Your task to perform on an android device: Clear all items from cart on walmart.com. Add macbook pro 13 inch to the cart on walmart.com, then select checkout. Image 0: 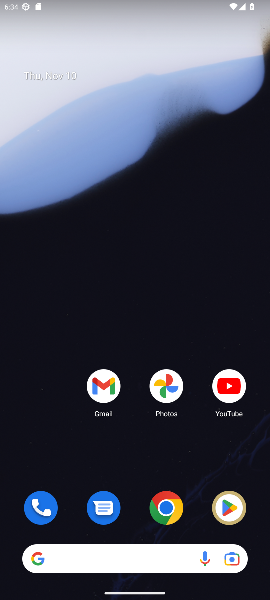
Step 0: click (164, 507)
Your task to perform on an android device: Clear all items from cart on walmart.com. Add macbook pro 13 inch to the cart on walmart.com, then select checkout. Image 1: 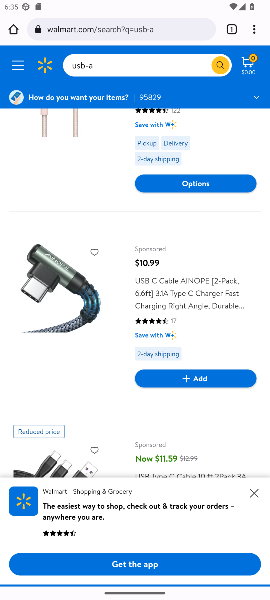
Step 1: click (154, 65)
Your task to perform on an android device: Clear all items from cart on walmart.com. Add macbook pro 13 inch to the cart on walmart.com, then select checkout. Image 2: 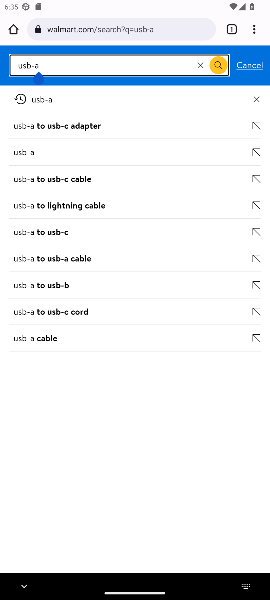
Step 2: click (199, 66)
Your task to perform on an android device: Clear all items from cart on walmart.com. Add macbook pro 13 inch to the cart on walmart.com, then select checkout. Image 3: 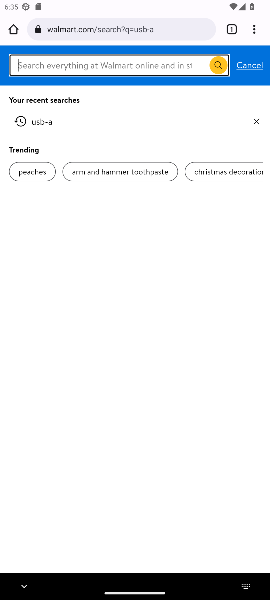
Step 3: type "macbook pro 13 inch"
Your task to perform on an android device: Clear all items from cart on walmart.com. Add macbook pro 13 inch to the cart on walmart.com, then select checkout. Image 4: 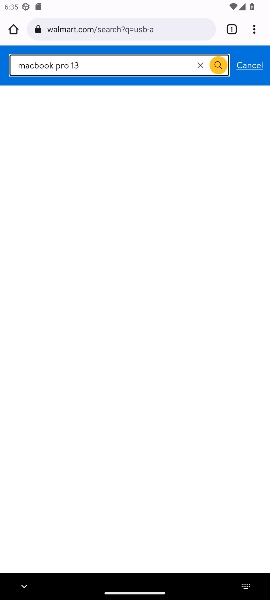
Step 4: press enter
Your task to perform on an android device: Clear all items from cart on walmart.com. Add macbook pro 13 inch to the cart on walmart.com, then select checkout. Image 5: 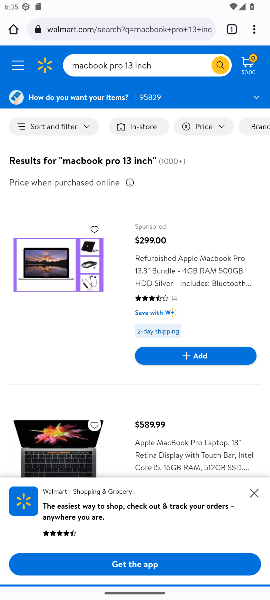
Step 5: click (201, 354)
Your task to perform on an android device: Clear all items from cart on walmart.com. Add macbook pro 13 inch to the cart on walmart.com, then select checkout. Image 6: 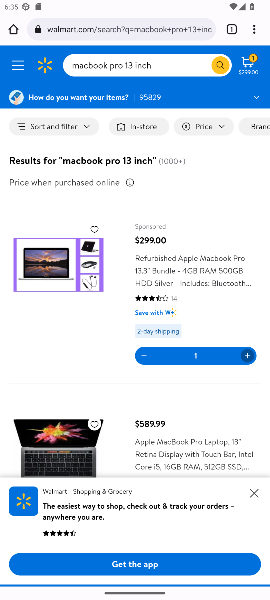
Step 6: click (249, 60)
Your task to perform on an android device: Clear all items from cart on walmart.com. Add macbook pro 13 inch to the cart on walmart.com, then select checkout. Image 7: 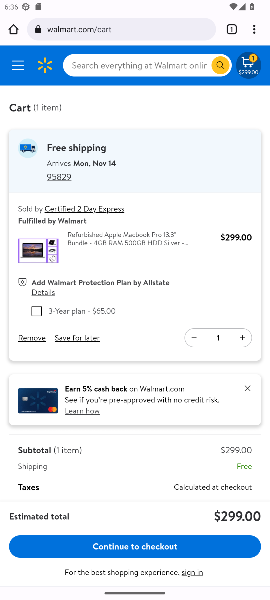
Step 7: click (139, 544)
Your task to perform on an android device: Clear all items from cart on walmart.com. Add macbook pro 13 inch to the cart on walmart.com, then select checkout. Image 8: 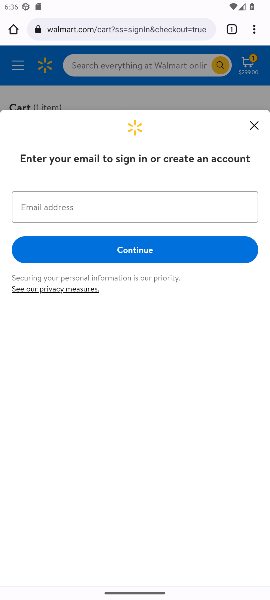
Step 8: task complete